Your task to perform on an android device: turn smart compose on in the gmail app Image 0: 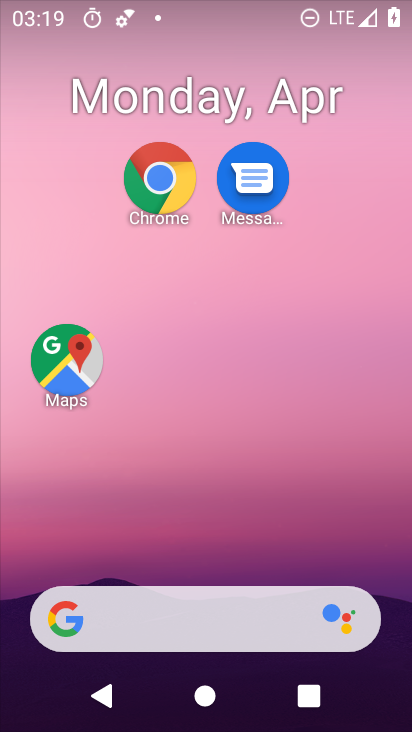
Step 0: drag from (262, 547) to (357, 20)
Your task to perform on an android device: turn smart compose on in the gmail app Image 1: 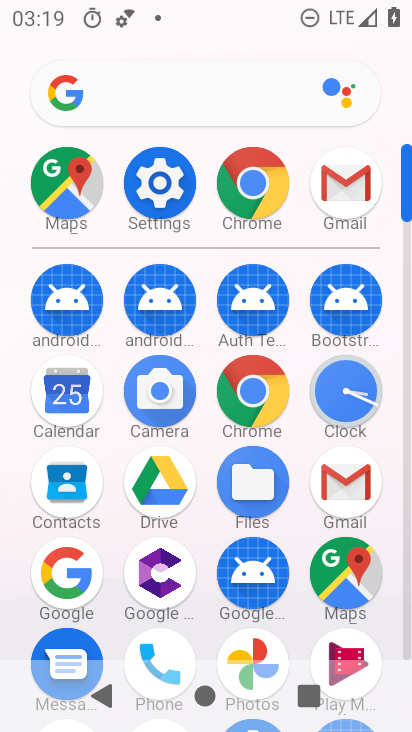
Step 1: click (336, 489)
Your task to perform on an android device: turn smart compose on in the gmail app Image 2: 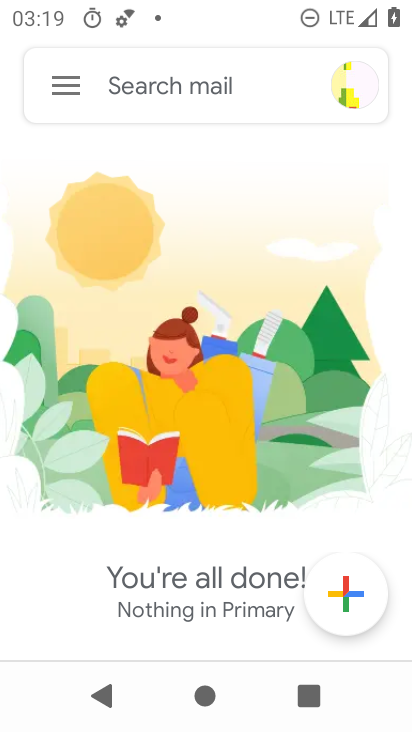
Step 2: click (68, 86)
Your task to perform on an android device: turn smart compose on in the gmail app Image 3: 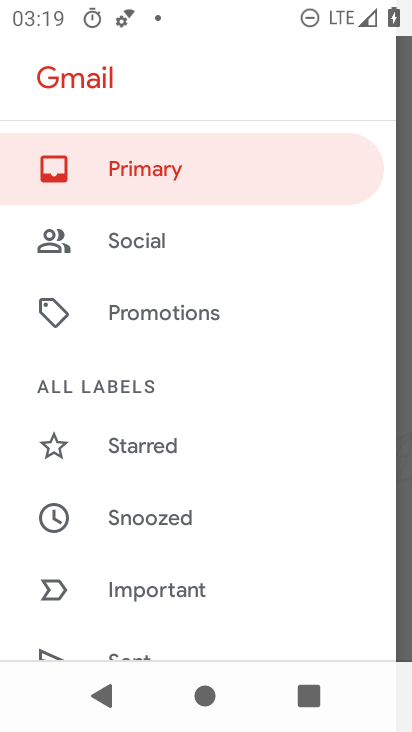
Step 3: drag from (90, 614) to (205, 25)
Your task to perform on an android device: turn smart compose on in the gmail app Image 4: 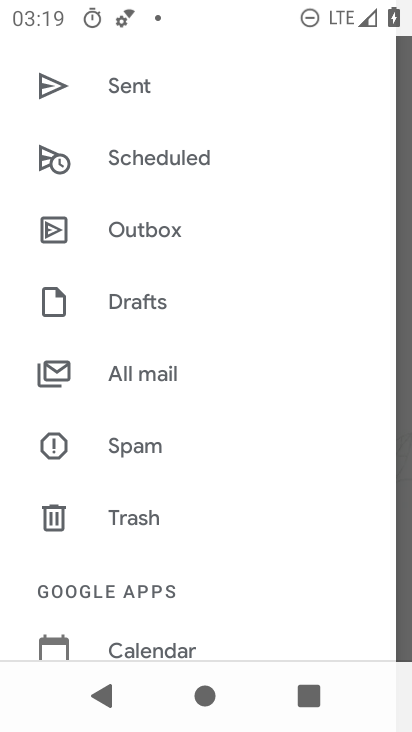
Step 4: drag from (189, 635) to (204, 109)
Your task to perform on an android device: turn smart compose on in the gmail app Image 5: 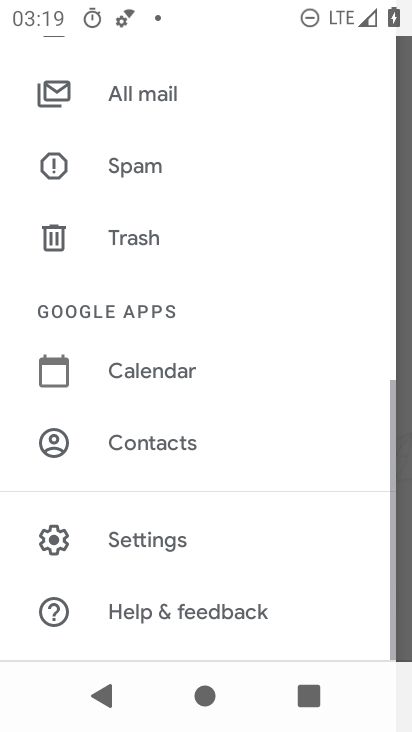
Step 5: click (179, 540)
Your task to perform on an android device: turn smart compose on in the gmail app Image 6: 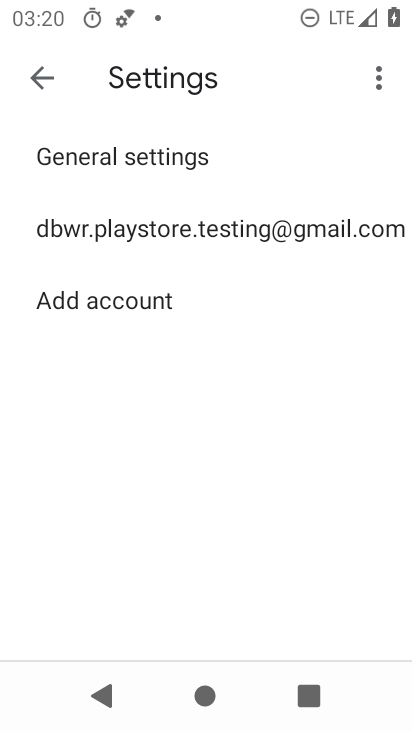
Step 6: click (235, 238)
Your task to perform on an android device: turn smart compose on in the gmail app Image 7: 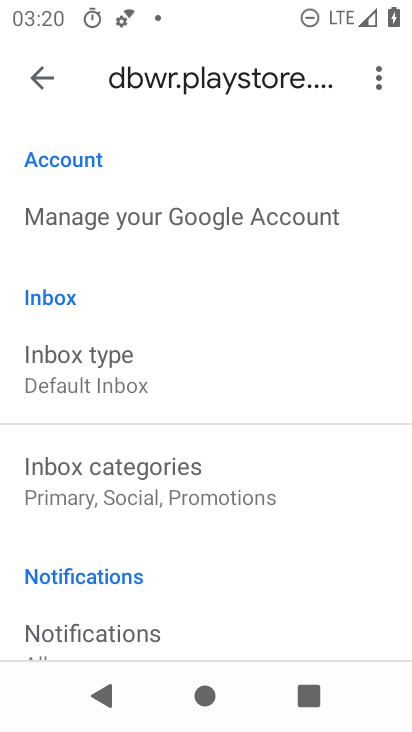
Step 7: task complete